Your task to perform on an android device: toggle sleep mode Image 0: 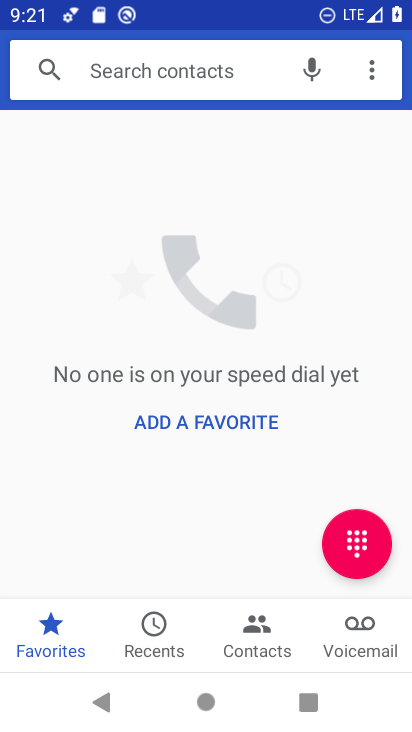
Step 0: press back button
Your task to perform on an android device: toggle sleep mode Image 1: 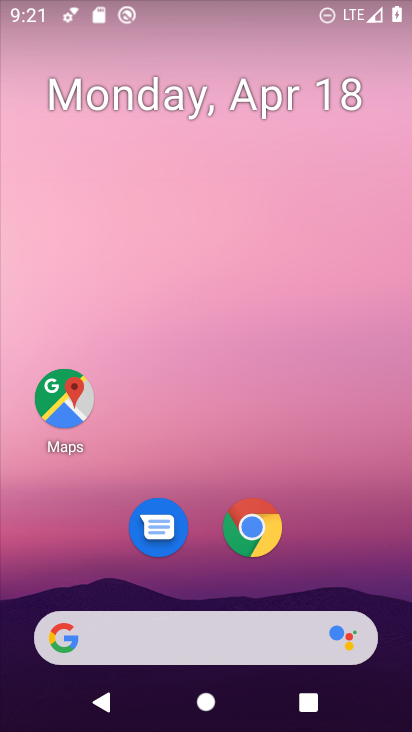
Step 1: drag from (373, 515) to (253, 1)
Your task to perform on an android device: toggle sleep mode Image 2: 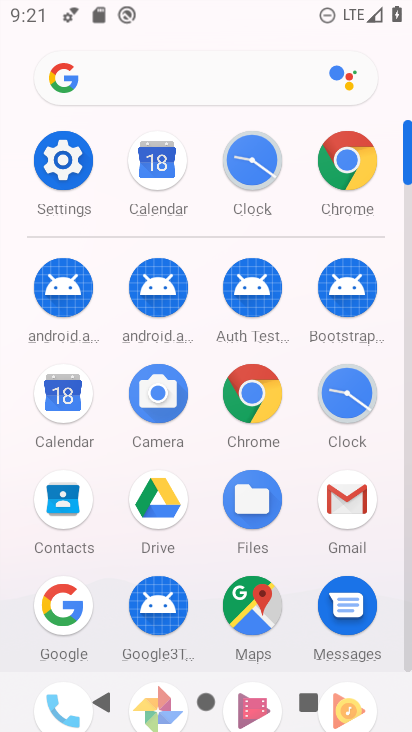
Step 2: click (64, 156)
Your task to perform on an android device: toggle sleep mode Image 3: 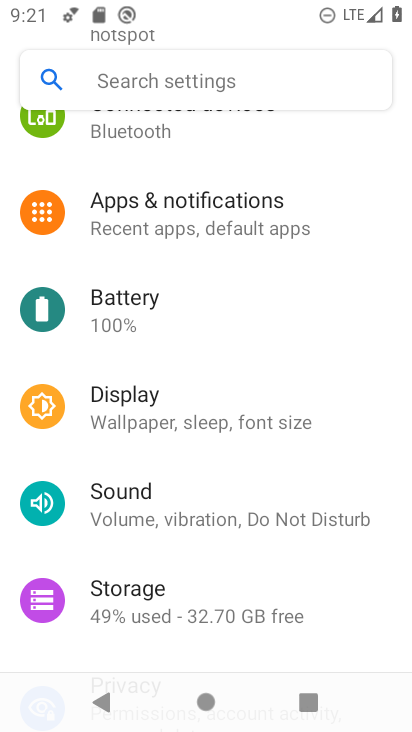
Step 3: drag from (319, 238) to (325, 485)
Your task to perform on an android device: toggle sleep mode Image 4: 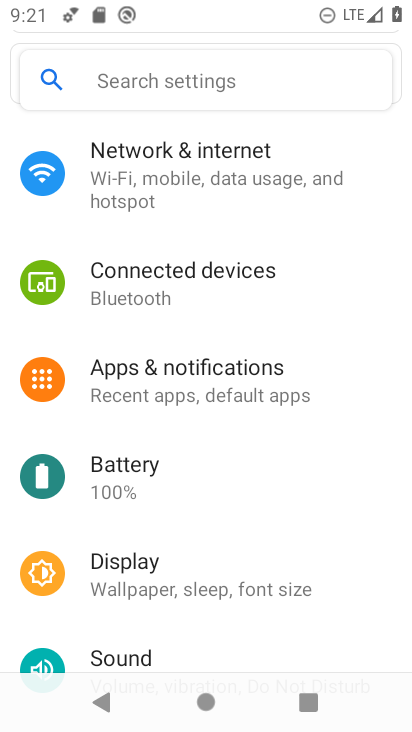
Step 4: drag from (311, 219) to (307, 506)
Your task to perform on an android device: toggle sleep mode Image 5: 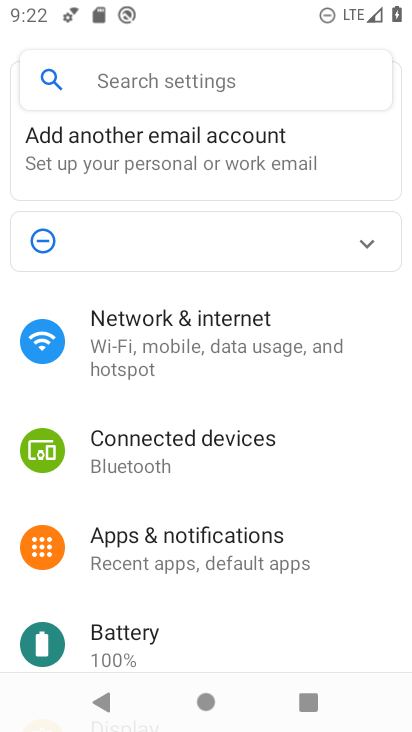
Step 5: drag from (290, 641) to (290, 375)
Your task to perform on an android device: toggle sleep mode Image 6: 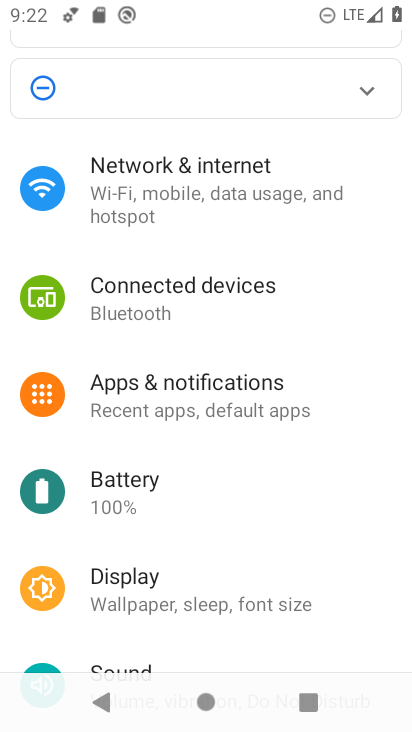
Step 6: drag from (362, 570) to (328, 269)
Your task to perform on an android device: toggle sleep mode Image 7: 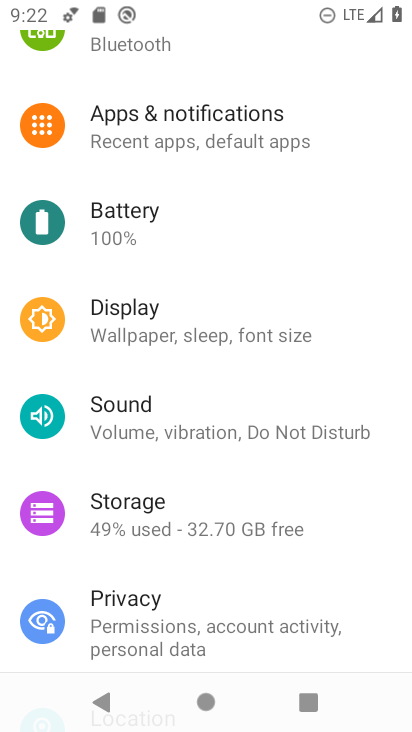
Step 7: drag from (299, 236) to (301, 394)
Your task to perform on an android device: toggle sleep mode Image 8: 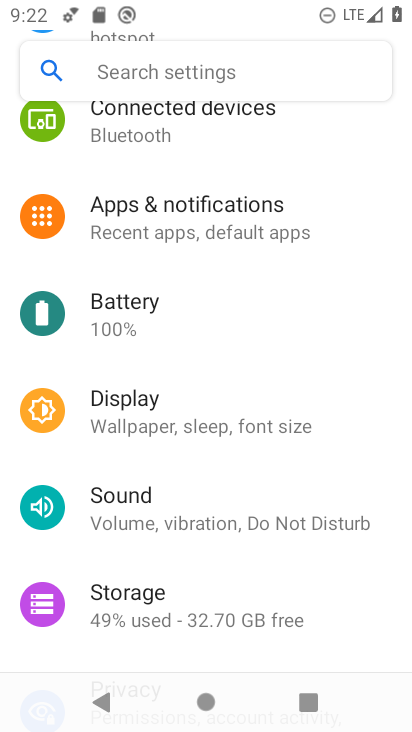
Step 8: click (232, 421)
Your task to perform on an android device: toggle sleep mode Image 9: 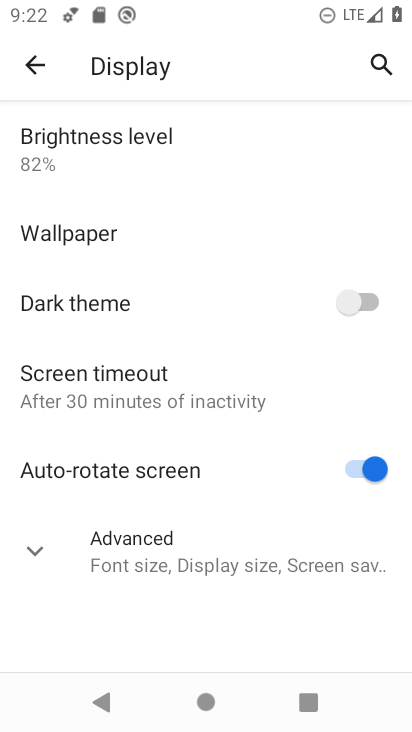
Step 9: click (52, 532)
Your task to perform on an android device: toggle sleep mode Image 10: 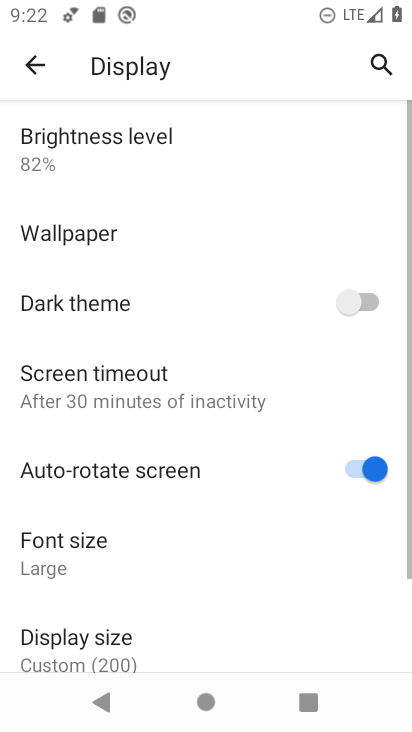
Step 10: task complete